Your task to perform on an android device: Play the last video I watched on Youtube Image 0: 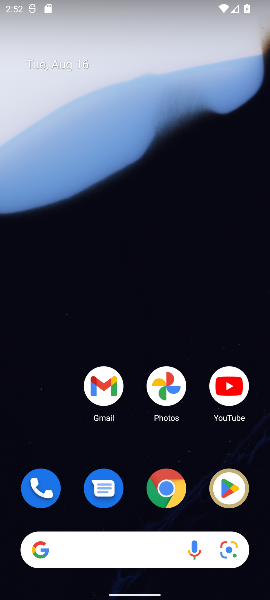
Step 0: task complete